Your task to perform on an android device: turn off improve location accuracy Image 0: 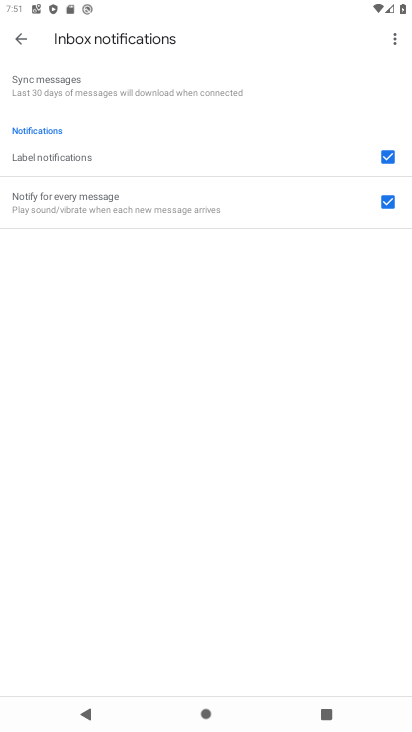
Step 0: press home button
Your task to perform on an android device: turn off improve location accuracy Image 1: 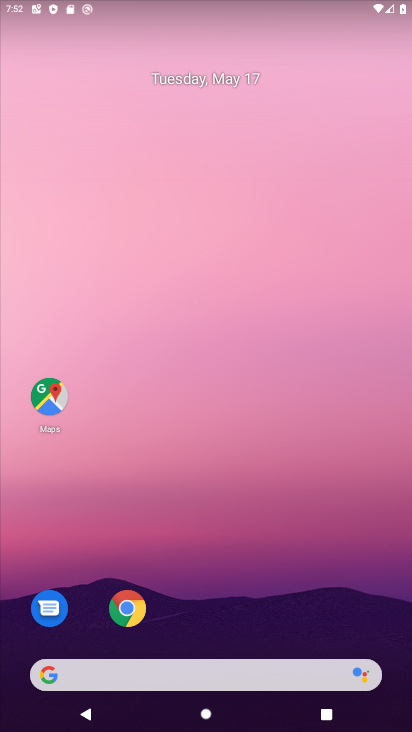
Step 1: drag from (205, 615) to (207, 179)
Your task to perform on an android device: turn off improve location accuracy Image 2: 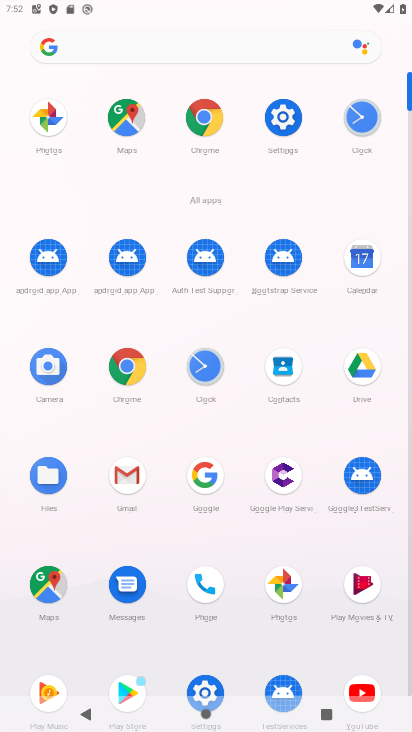
Step 2: click (288, 106)
Your task to perform on an android device: turn off improve location accuracy Image 3: 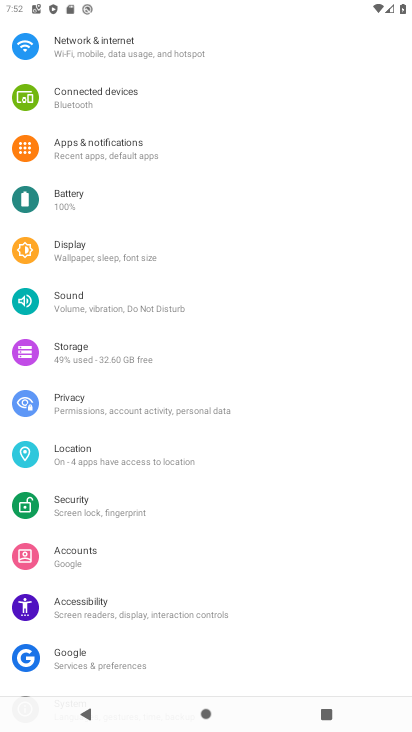
Step 3: click (85, 459)
Your task to perform on an android device: turn off improve location accuracy Image 4: 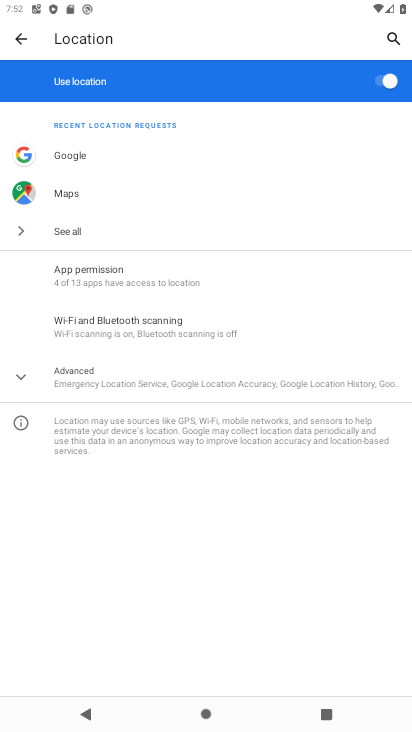
Step 4: click (201, 374)
Your task to perform on an android device: turn off improve location accuracy Image 5: 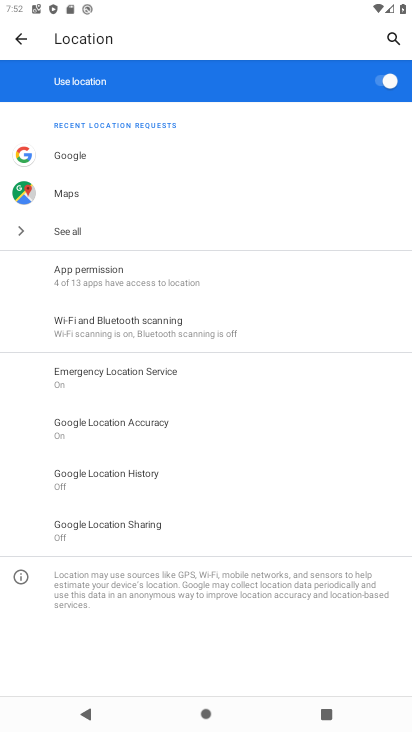
Step 5: click (131, 441)
Your task to perform on an android device: turn off improve location accuracy Image 6: 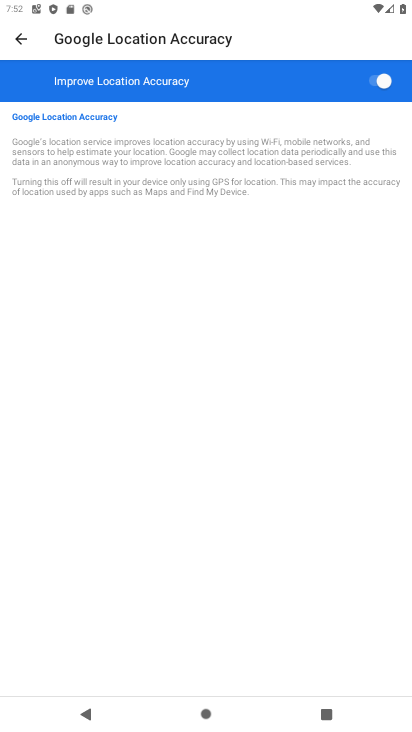
Step 6: click (369, 92)
Your task to perform on an android device: turn off improve location accuracy Image 7: 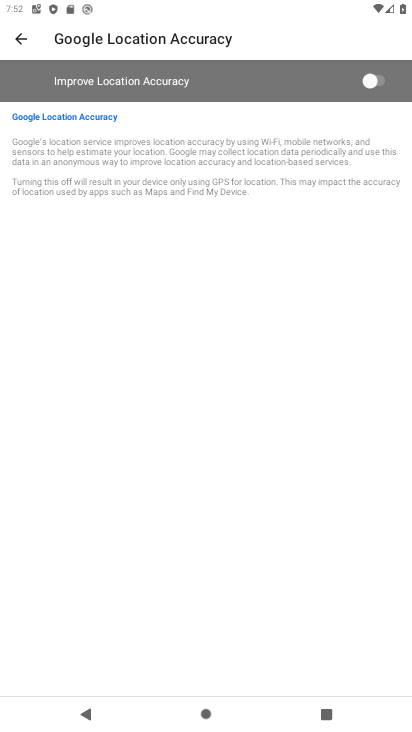
Step 7: task complete